Your task to perform on an android device: Open Google Maps Image 0: 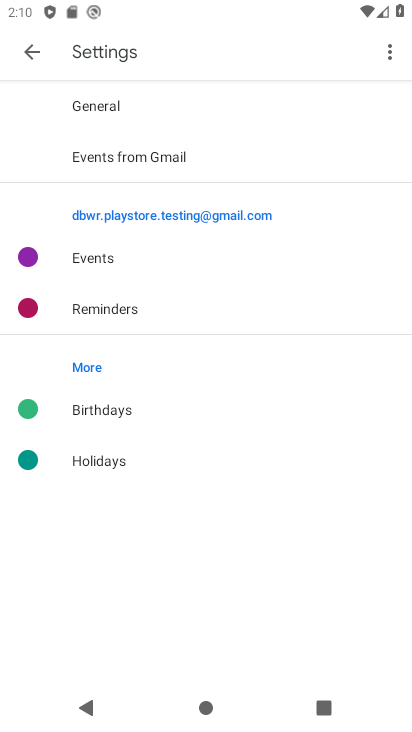
Step 0: press home button
Your task to perform on an android device: Open Google Maps Image 1: 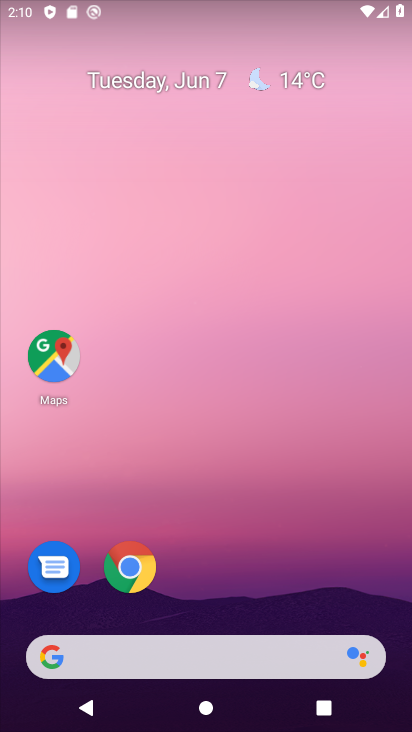
Step 1: click (54, 356)
Your task to perform on an android device: Open Google Maps Image 2: 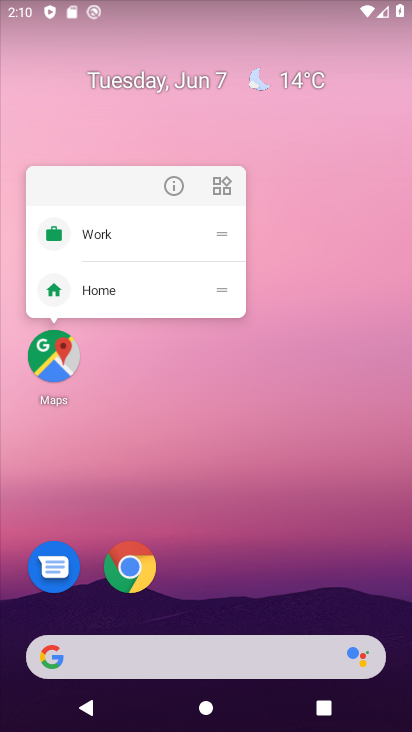
Step 2: click (43, 353)
Your task to perform on an android device: Open Google Maps Image 3: 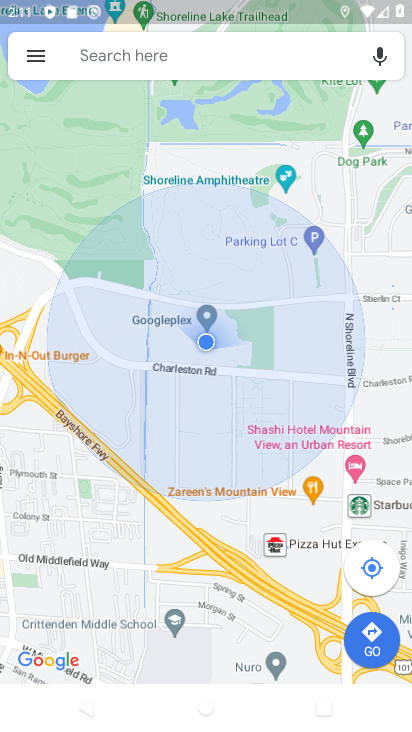
Step 3: task complete